Your task to perform on an android device: turn off smart reply in the gmail app Image 0: 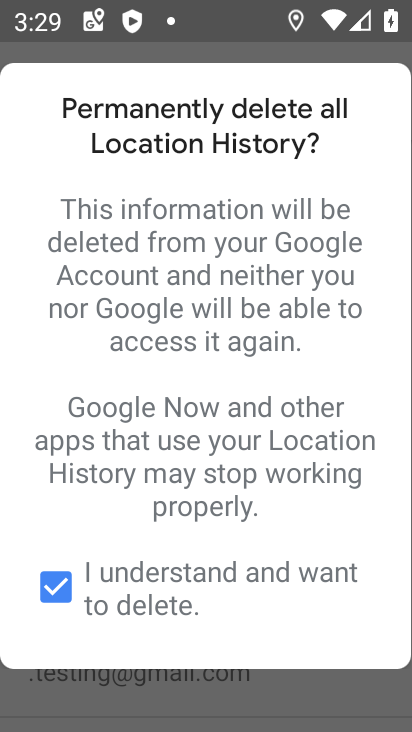
Step 0: press home button
Your task to perform on an android device: turn off smart reply in the gmail app Image 1: 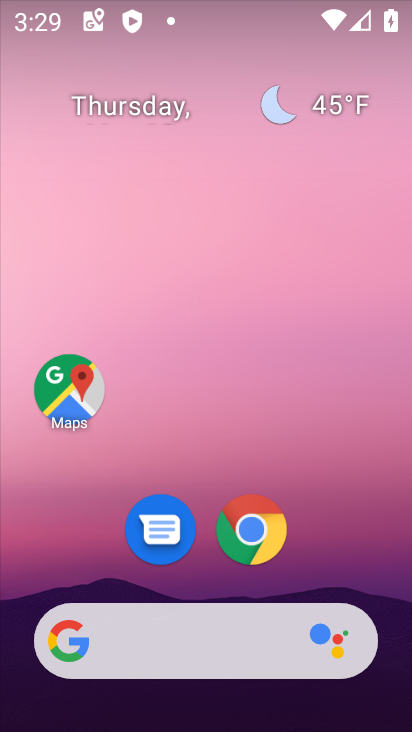
Step 1: drag from (344, 533) to (310, 97)
Your task to perform on an android device: turn off smart reply in the gmail app Image 2: 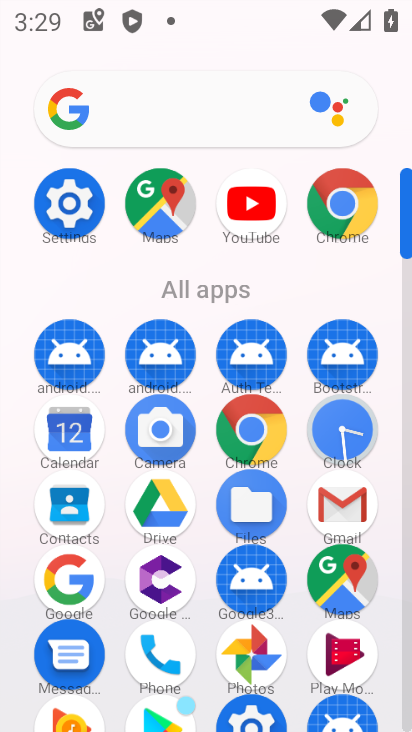
Step 2: drag from (402, 557) to (405, 210)
Your task to perform on an android device: turn off smart reply in the gmail app Image 3: 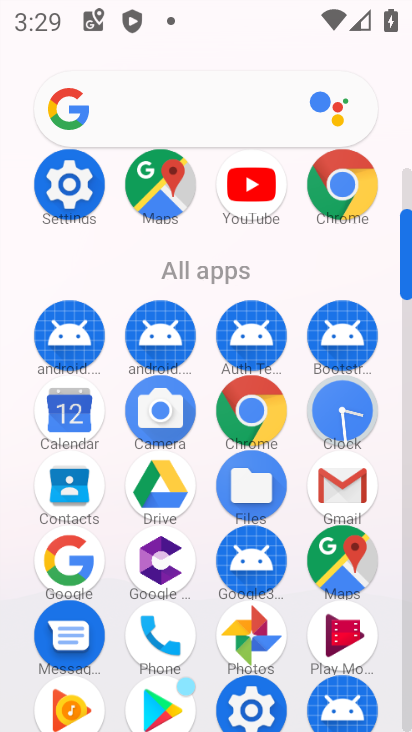
Step 3: click (344, 480)
Your task to perform on an android device: turn off smart reply in the gmail app Image 4: 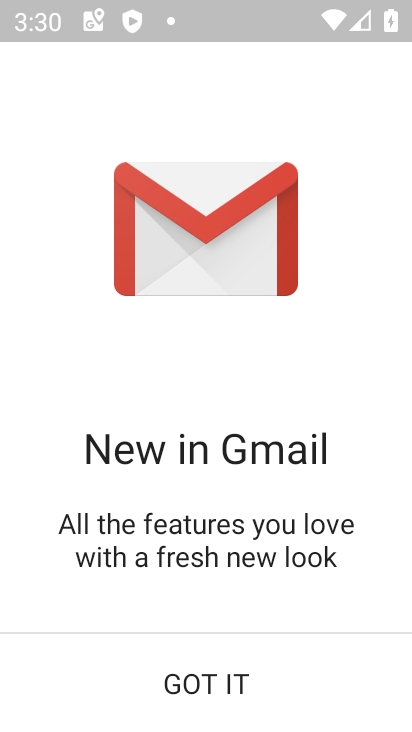
Step 4: click (193, 702)
Your task to perform on an android device: turn off smart reply in the gmail app Image 5: 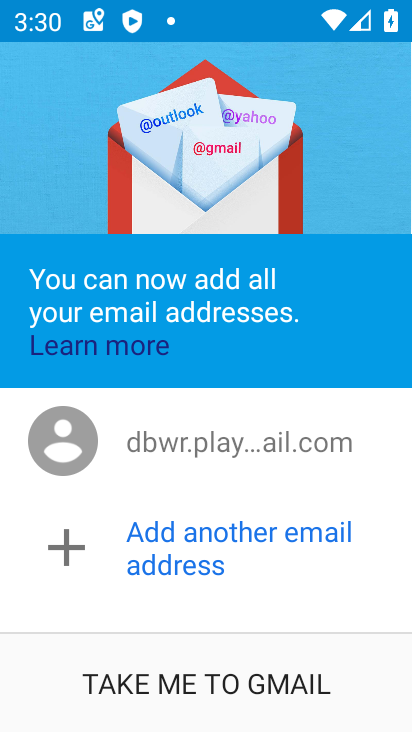
Step 5: click (150, 682)
Your task to perform on an android device: turn off smart reply in the gmail app Image 6: 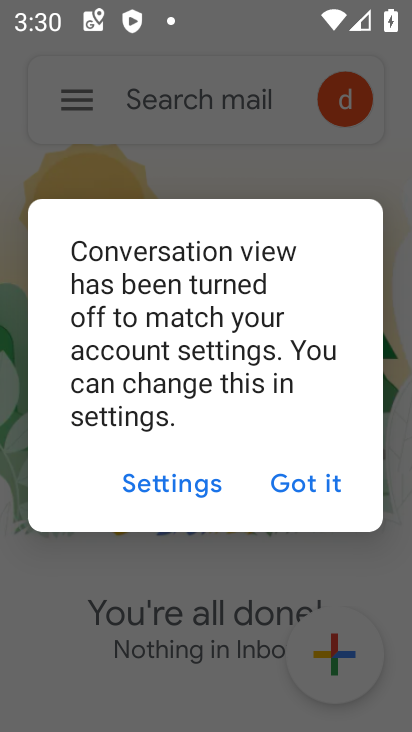
Step 6: click (306, 486)
Your task to perform on an android device: turn off smart reply in the gmail app Image 7: 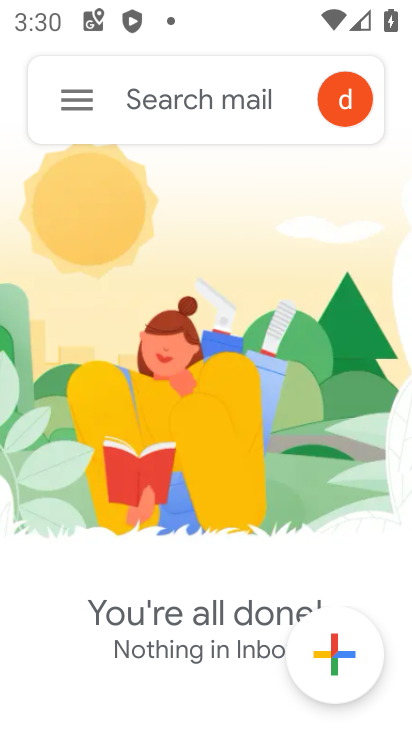
Step 7: click (53, 90)
Your task to perform on an android device: turn off smart reply in the gmail app Image 8: 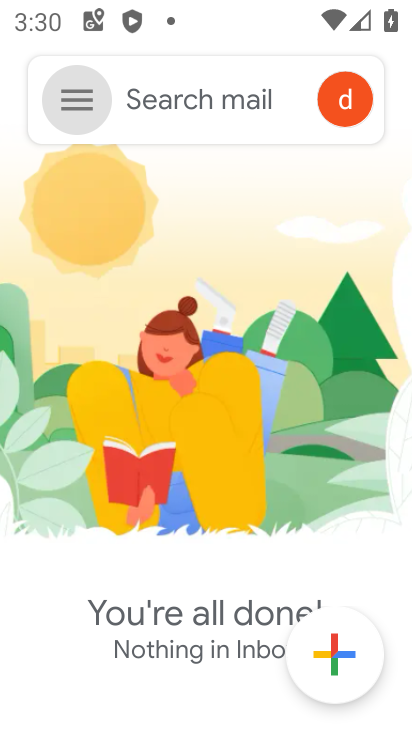
Step 8: click (70, 104)
Your task to perform on an android device: turn off smart reply in the gmail app Image 9: 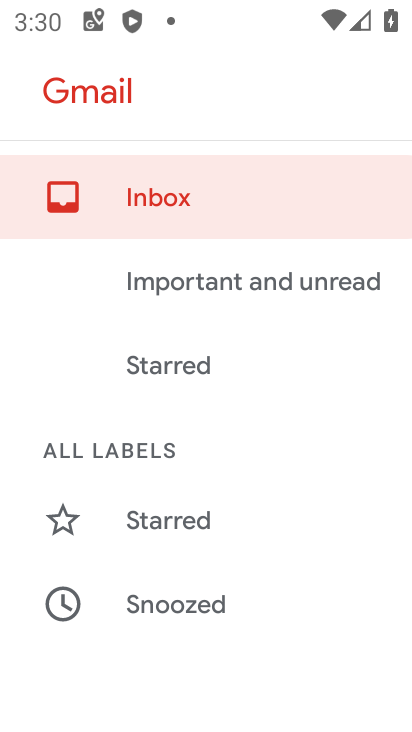
Step 9: drag from (153, 594) to (200, 224)
Your task to perform on an android device: turn off smart reply in the gmail app Image 10: 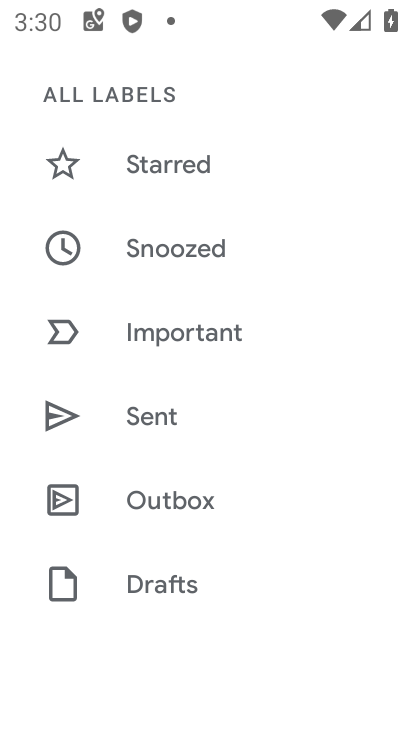
Step 10: drag from (174, 574) to (241, 191)
Your task to perform on an android device: turn off smart reply in the gmail app Image 11: 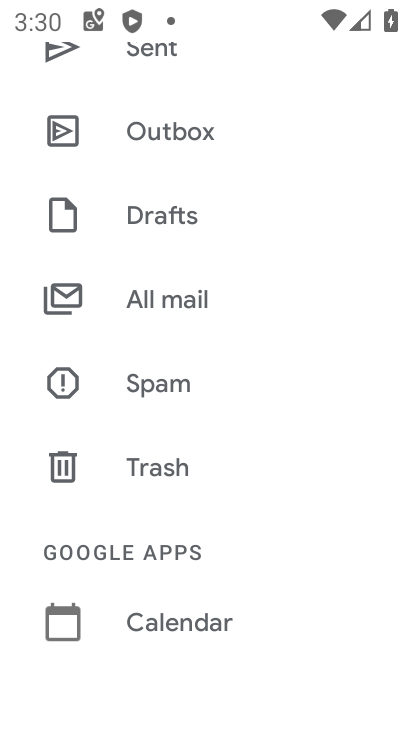
Step 11: drag from (166, 529) to (232, 155)
Your task to perform on an android device: turn off smart reply in the gmail app Image 12: 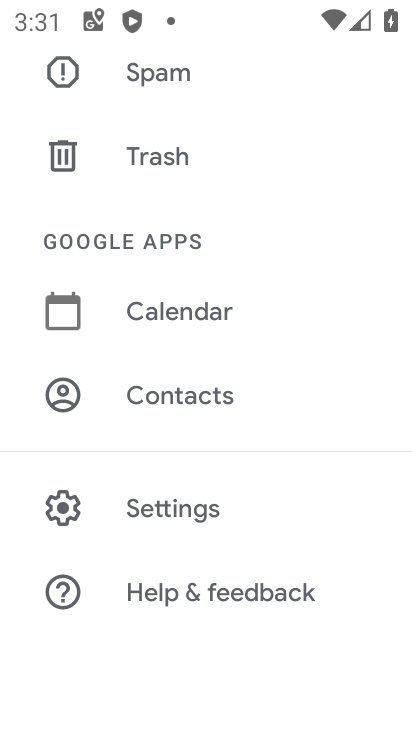
Step 12: click (151, 500)
Your task to perform on an android device: turn off smart reply in the gmail app Image 13: 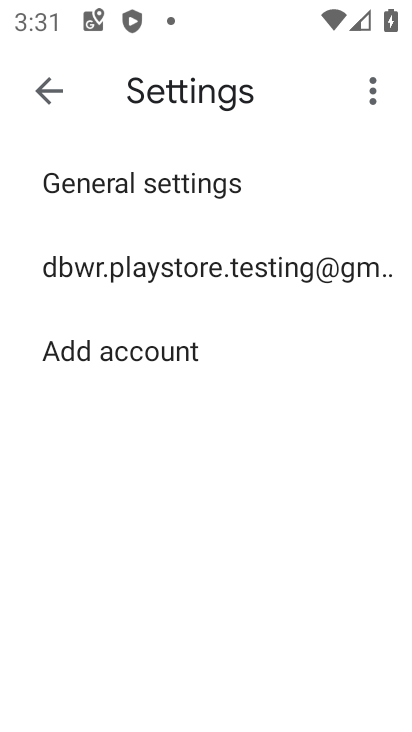
Step 13: click (185, 258)
Your task to perform on an android device: turn off smart reply in the gmail app Image 14: 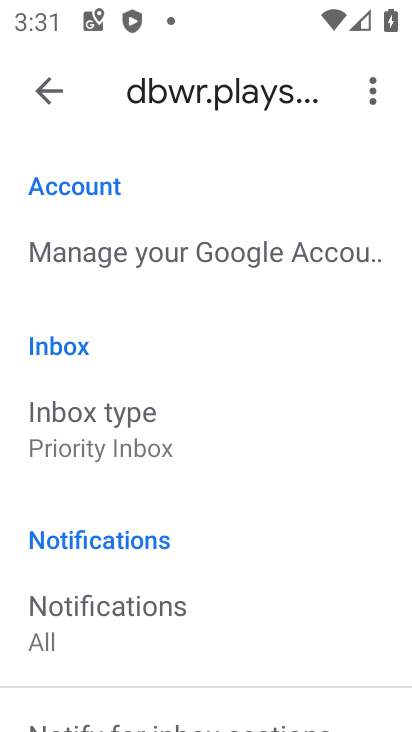
Step 14: drag from (230, 599) to (255, 169)
Your task to perform on an android device: turn off smart reply in the gmail app Image 15: 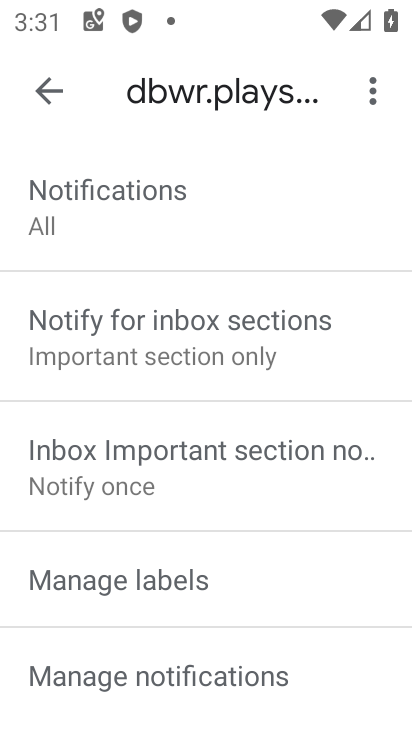
Step 15: drag from (169, 535) to (219, 112)
Your task to perform on an android device: turn off smart reply in the gmail app Image 16: 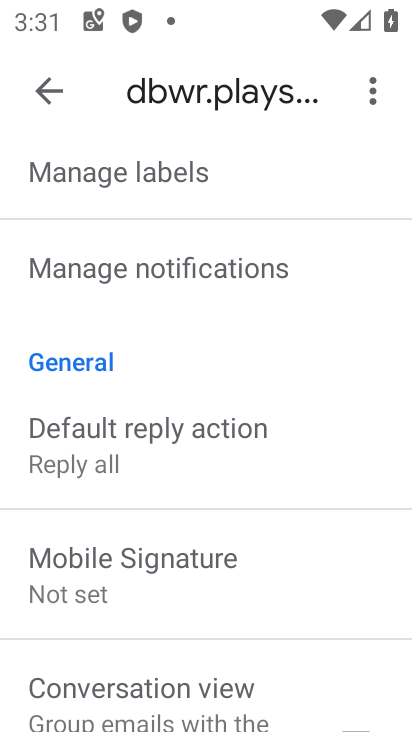
Step 16: drag from (127, 567) to (201, 246)
Your task to perform on an android device: turn off smart reply in the gmail app Image 17: 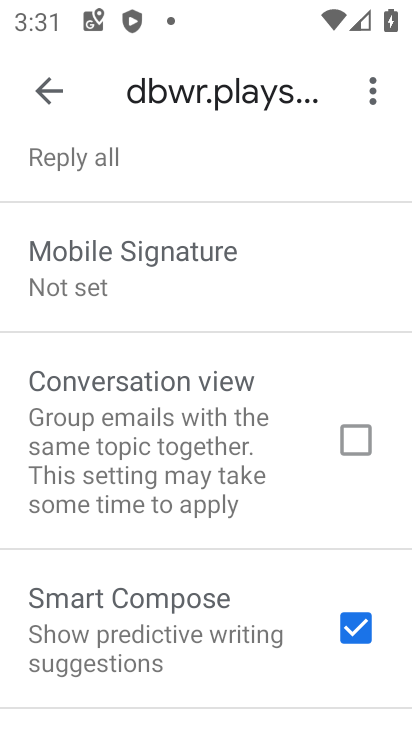
Step 17: drag from (135, 614) to (190, 264)
Your task to perform on an android device: turn off smart reply in the gmail app Image 18: 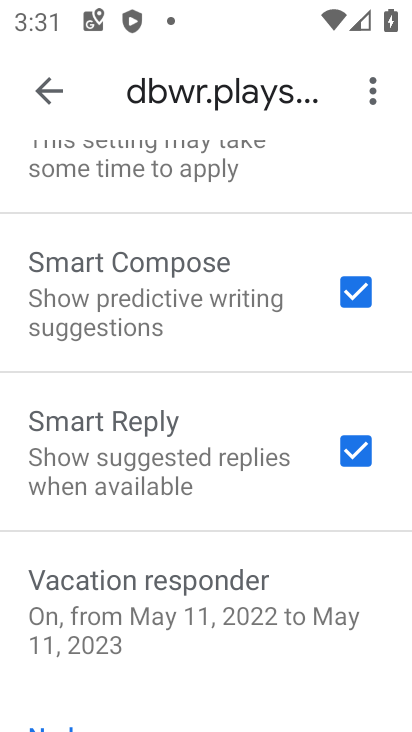
Step 18: click (351, 451)
Your task to perform on an android device: turn off smart reply in the gmail app Image 19: 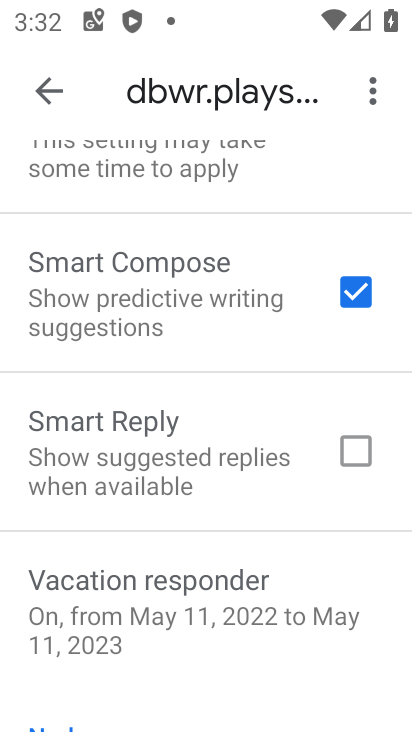
Step 19: task complete